Your task to perform on an android device: move a message to another label in the gmail app Image 0: 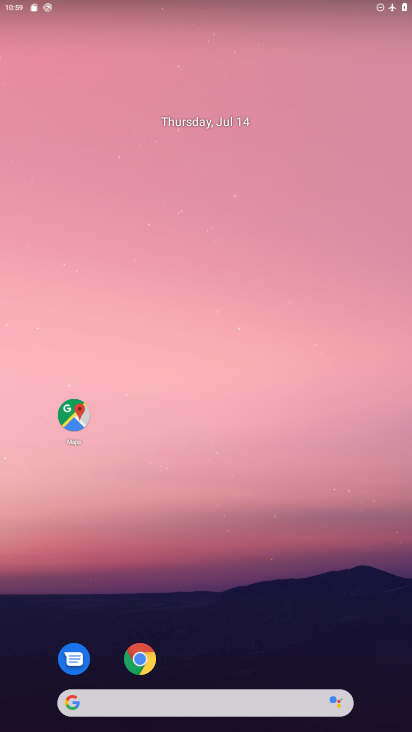
Step 0: drag from (287, 541) to (265, 73)
Your task to perform on an android device: move a message to another label in the gmail app Image 1: 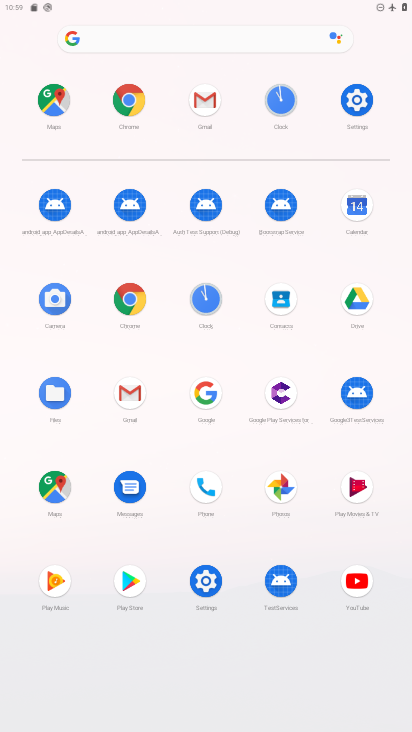
Step 1: click (205, 103)
Your task to perform on an android device: move a message to another label in the gmail app Image 2: 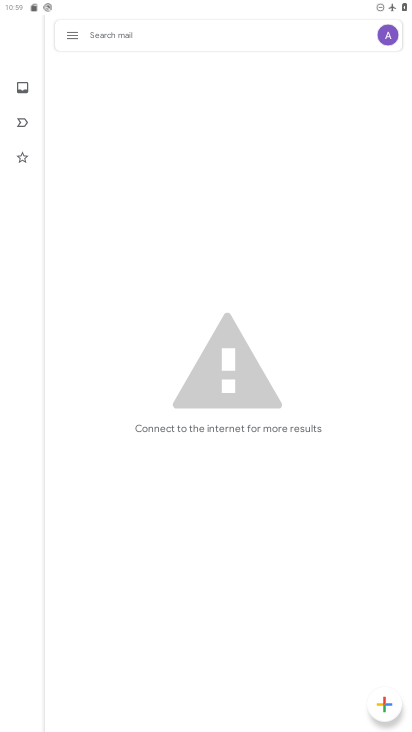
Step 2: click (64, 35)
Your task to perform on an android device: move a message to another label in the gmail app Image 3: 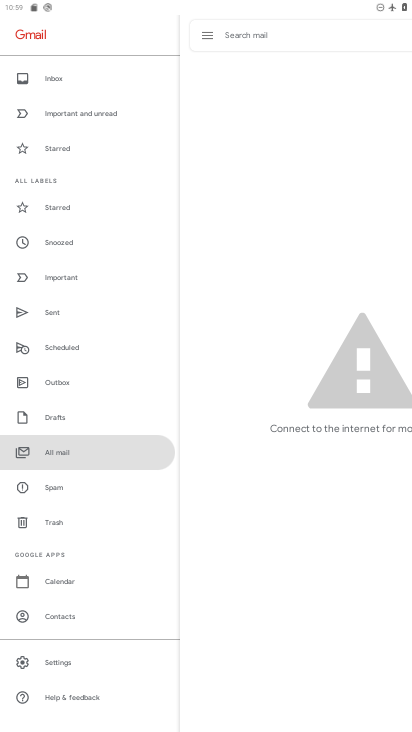
Step 3: click (81, 458)
Your task to perform on an android device: move a message to another label in the gmail app Image 4: 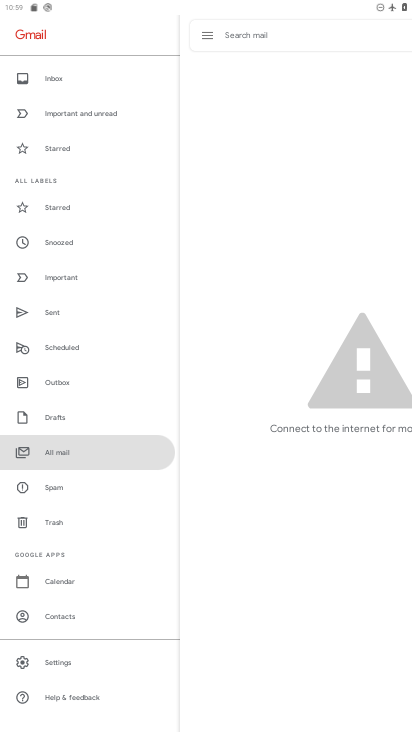
Step 4: task complete